Your task to perform on an android device: turn off sleep mode Image 0: 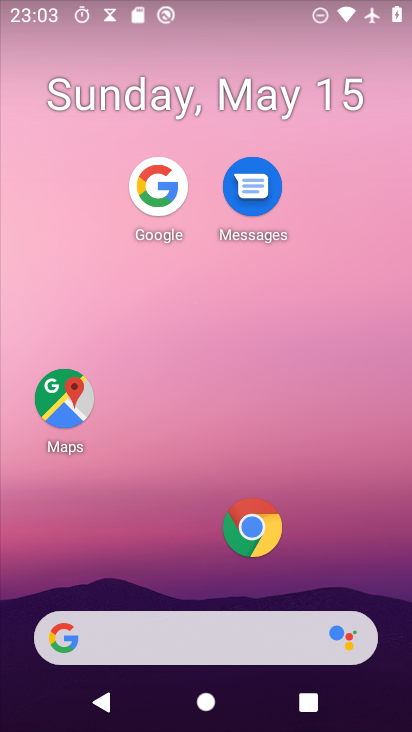
Step 0: press home button
Your task to perform on an android device: turn off sleep mode Image 1: 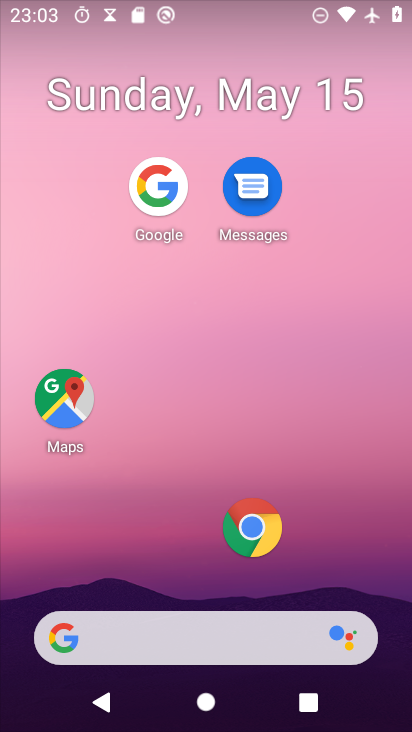
Step 1: drag from (140, 637) to (285, 22)
Your task to perform on an android device: turn off sleep mode Image 2: 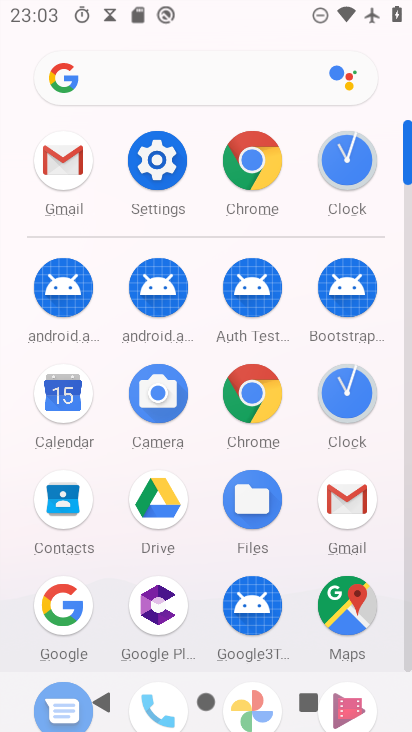
Step 2: click (147, 167)
Your task to perform on an android device: turn off sleep mode Image 3: 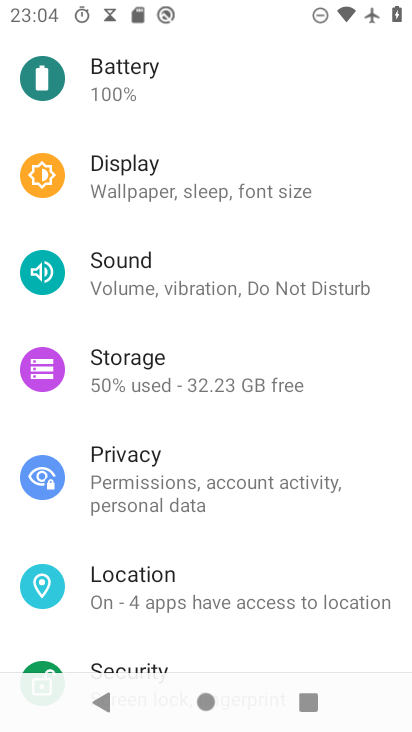
Step 3: click (150, 184)
Your task to perform on an android device: turn off sleep mode Image 4: 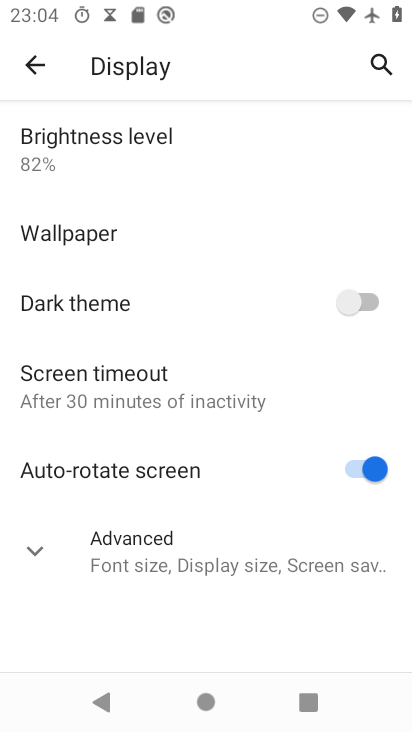
Step 4: task complete